Your task to perform on an android device: turn on improve location accuracy Image 0: 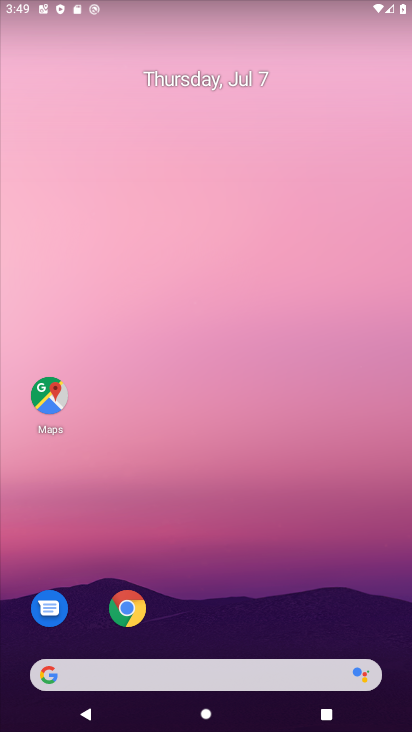
Step 0: drag from (271, 625) to (204, 209)
Your task to perform on an android device: turn on improve location accuracy Image 1: 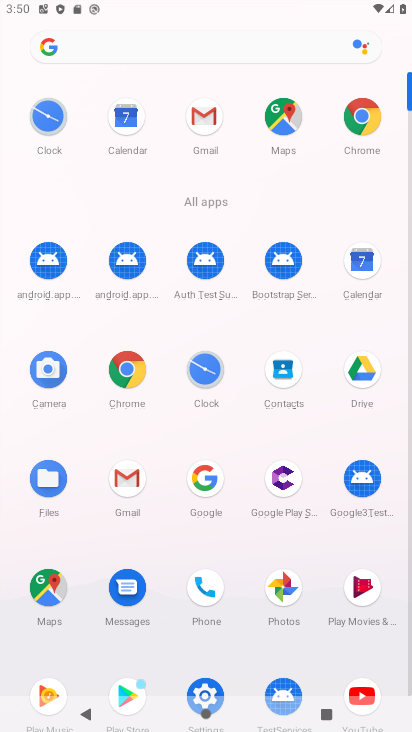
Step 1: click (205, 684)
Your task to perform on an android device: turn on improve location accuracy Image 2: 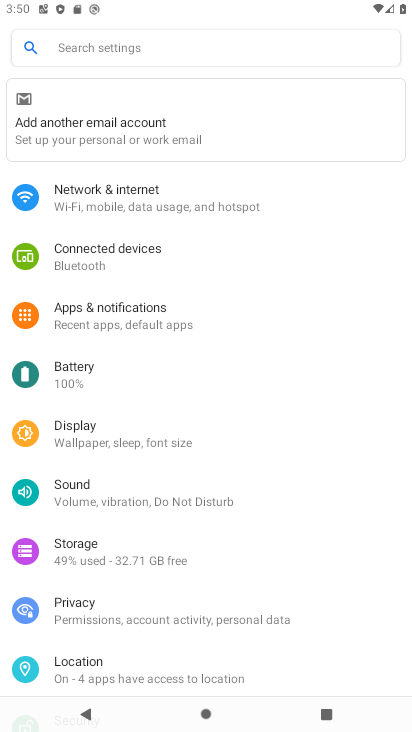
Step 2: drag from (229, 672) to (223, 444)
Your task to perform on an android device: turn on improve location accuracy Image 3: 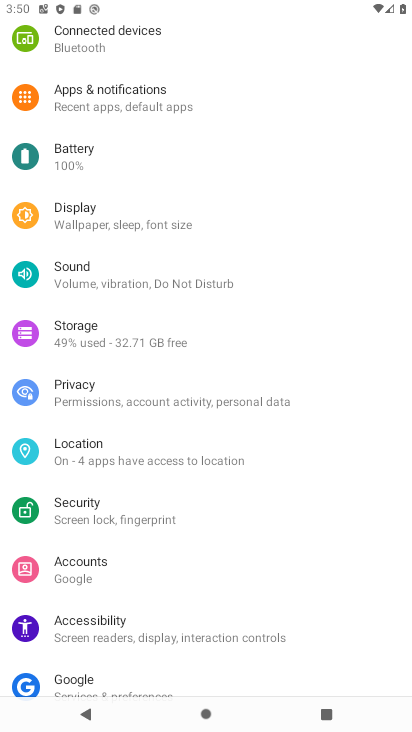
Step 3: click (239, 457)
Your task to perform on an android device: turn on improve location accuracy Image 4: 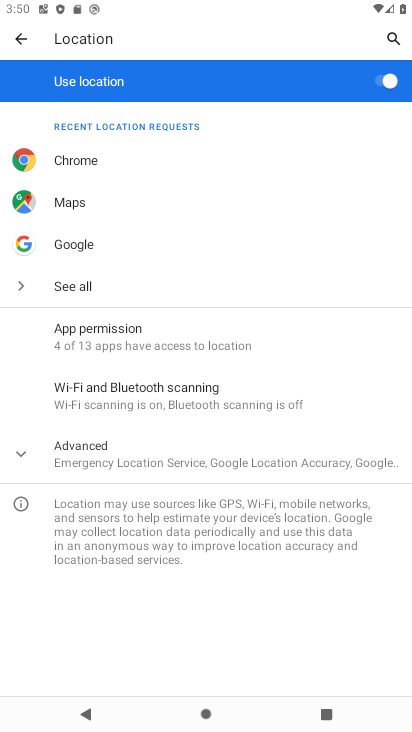
Step 4: click (284, 460)
Your task to perform on an android device: turn on improve location accuracy Image 5: 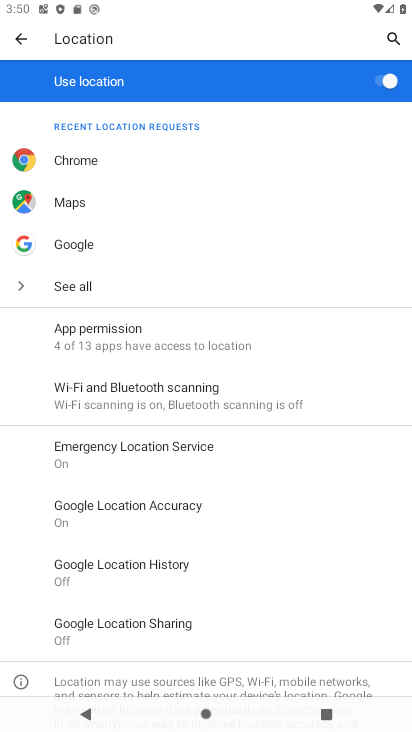
Step 5: click (197, 510)
Your task to perform on an android device: turn on improve location accuracy Image 6: 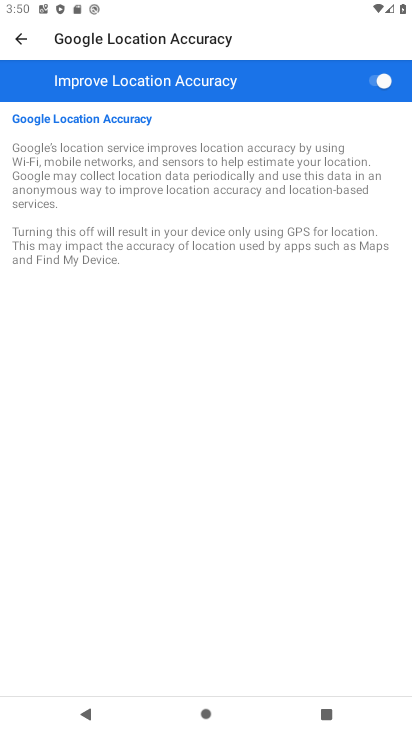
Step 6: task complete